Your task to perform on an android device: Open network settings Image 0: 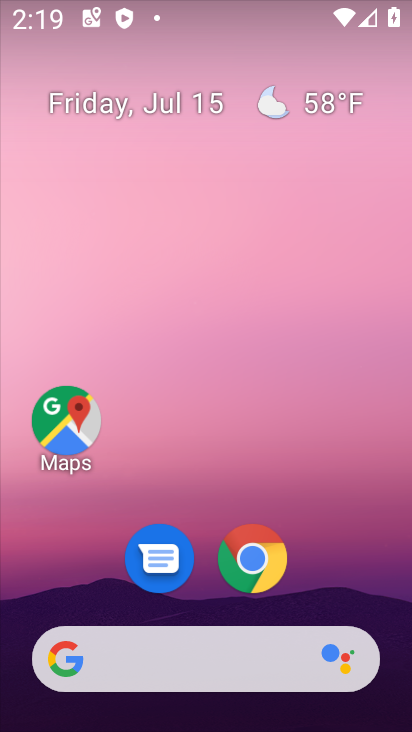
Step 0: drag from (351, 590) to (343, 100)
Your task to perform on an android device: Open network settings Image 1: 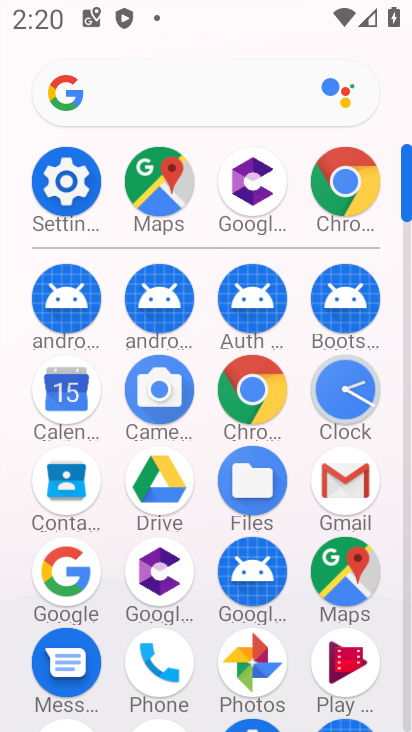
Step 1: click (82, 194)
Your task to perform on an android device: Open network settings Image 2: 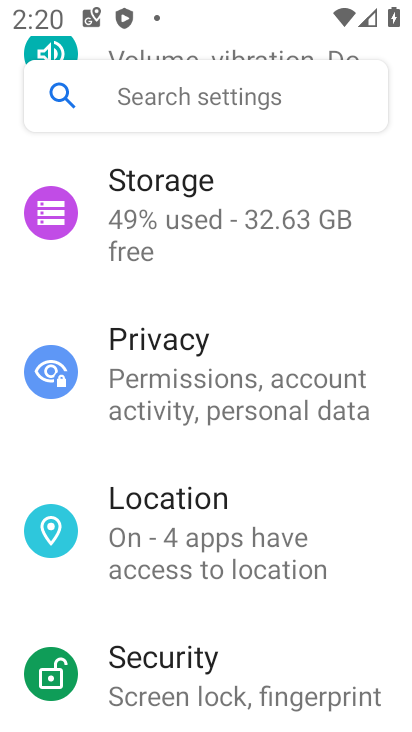
Step 2: drag from (370, 164) to (376, 289)
Your task to perform on an android device: Open network settings Image 3: 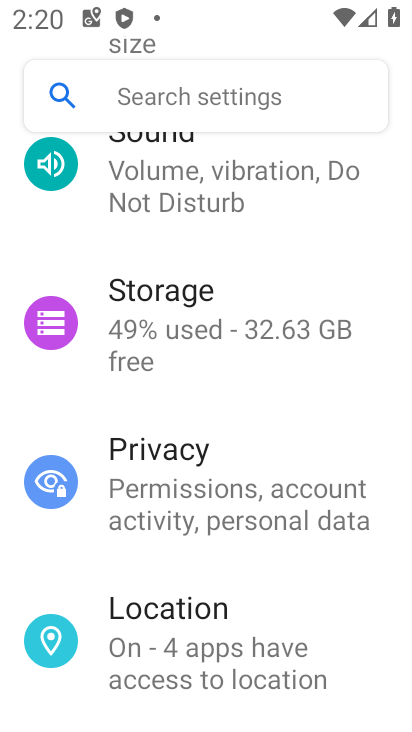
Step 3: drag from (376, 178) to (372, 300)
Your task to perform on an android device: Open network settings Image 4: 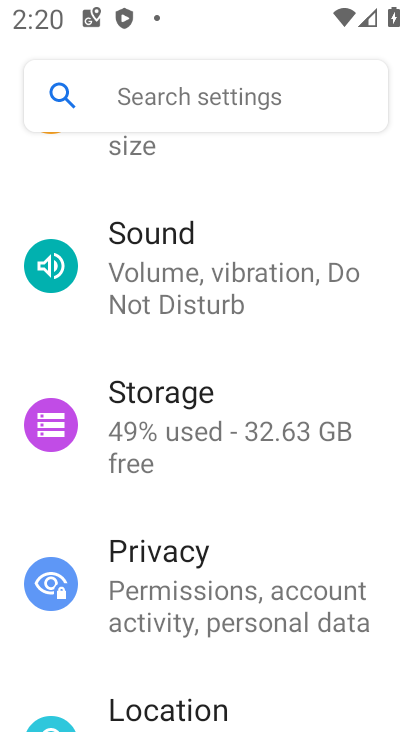
Step 4: drag from (364, 189) to (364, 323)
Your task to perform on an android device: Open network settings Image 5: 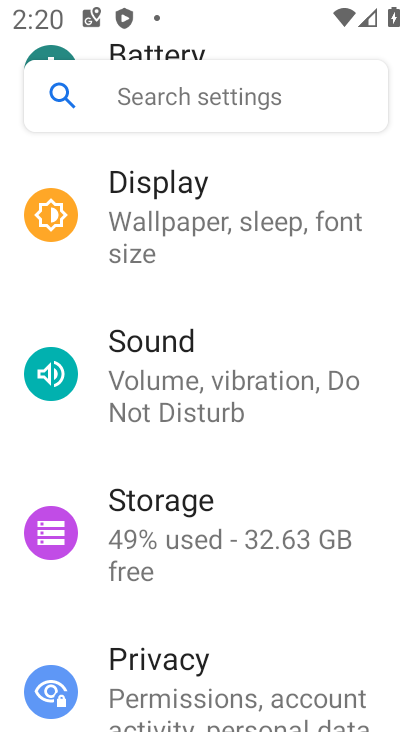
Step 5: drag from (368, 176) to (367, 293)
Your task to perform on an android device: Open network settings Image 6: 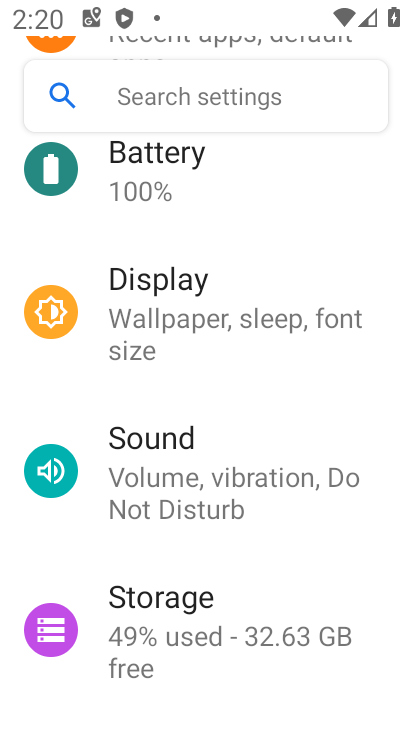
Step 6: drag from (366, 174) to (364, 374)
Your task to perform on an android device: Open network settings Image 7: 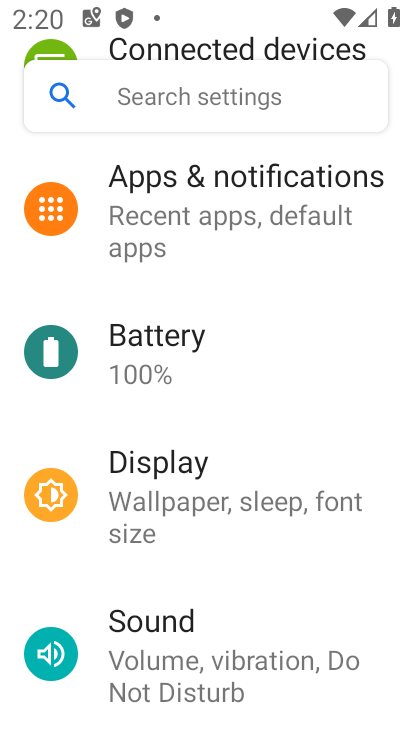
Step 7: drag from (361, 255) to (359, 389)
Your task to perform on an android device: Open network settings Image 8: 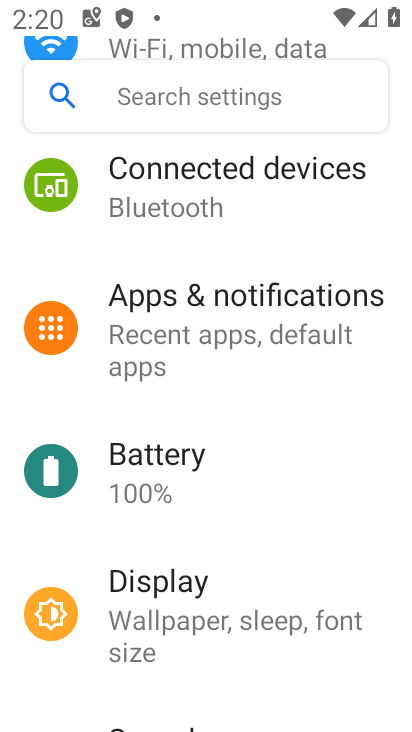
Step 8: drag from (369, 215) to (365, 352)
Your task to perform on an android device: Open network settings Image 9: 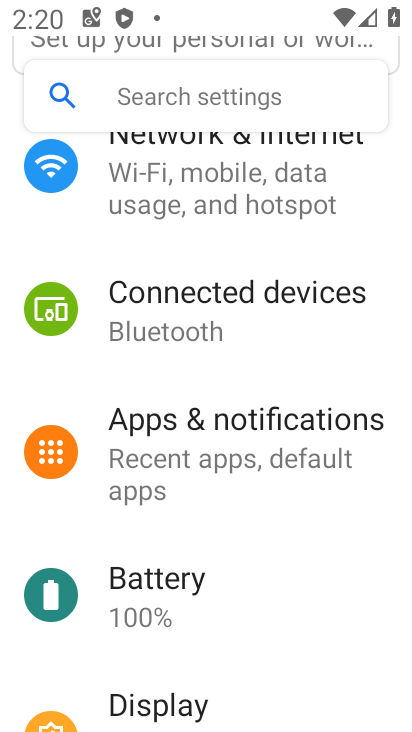
Step 9: drag from (361, 192) to (369, 348)
Your task to perform on an android device: Open network settings Image 10: 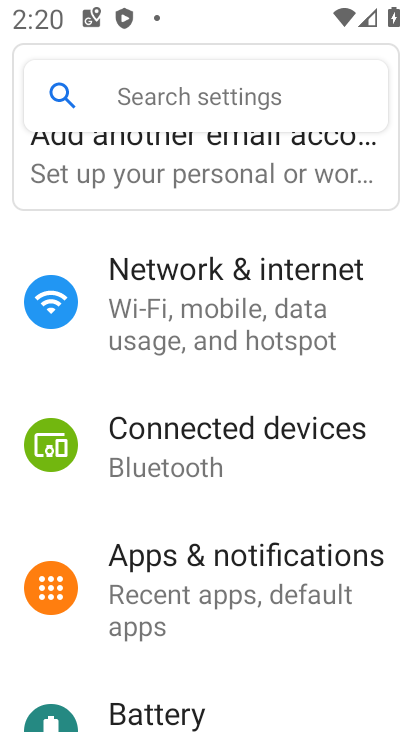
Step 10: click (292, 304)
Your task to perform on an android device: Open network settings Image 11: 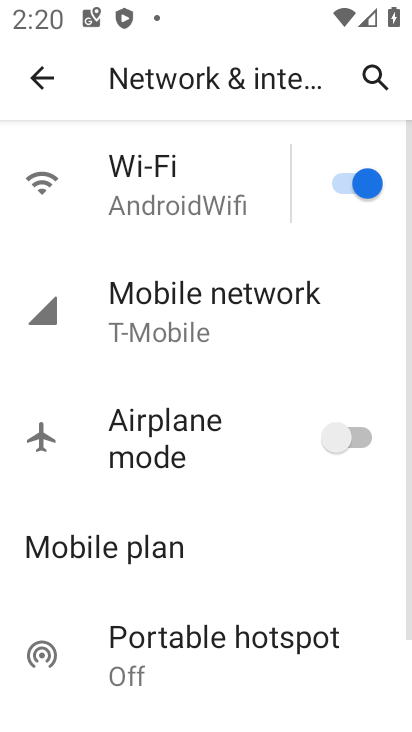
Step 11: task complete